Your task to perform on an android device: Open the calendar and show me this week's events Image 0: 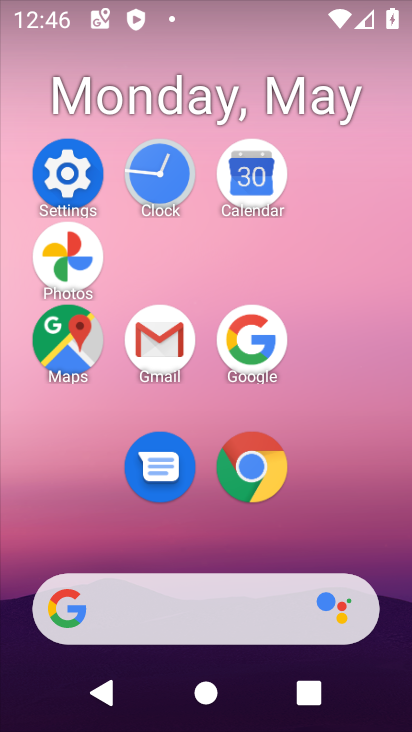
Step 0: click (243, 175)
Your task to perform on an android device: Open the calendar and show me this week's events Image 1: 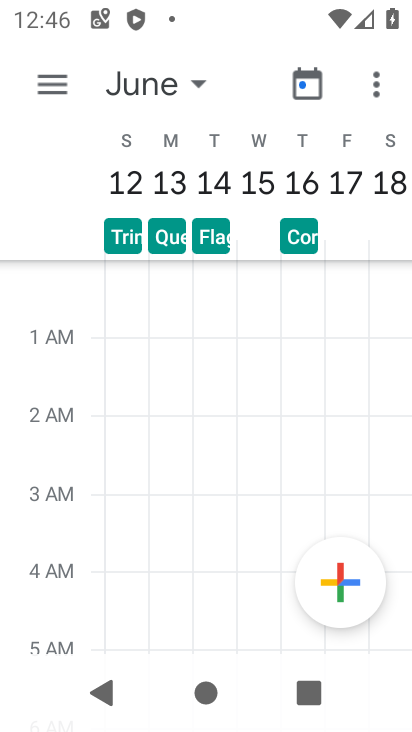
Step 1: task complete